Your task to perform on an android device: Open calendar and show me the second week of next month Image 0: 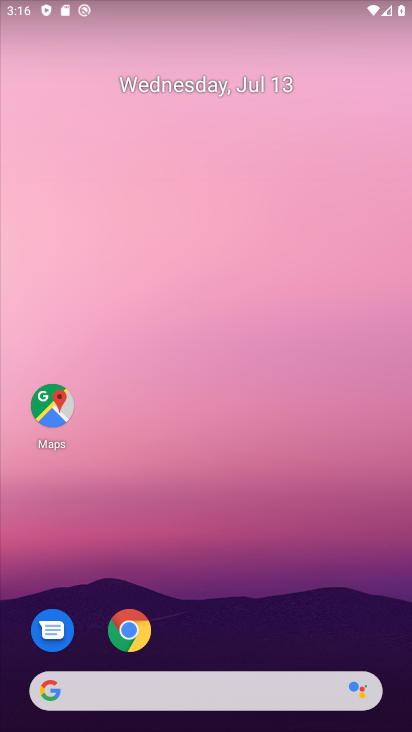
Step 0: press home button
Your task to perform on an android device: Open calendar and show me the second week of next month Image 1: 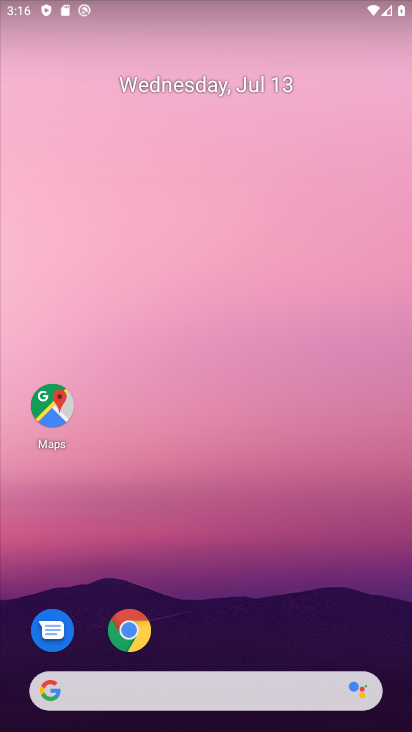
Step 1: drag from (260, 532) to (256, 93)
Your task to perform on an android device: Open calendar and show me the second week of next month Image 2: 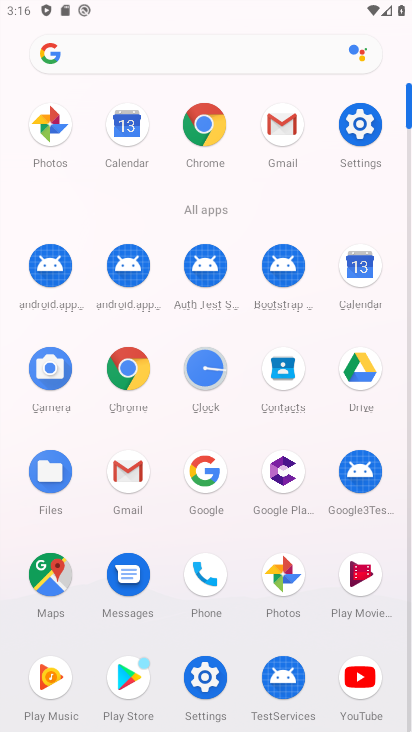
Step 2: click (357, 266)
Your task to perform on an android device: Open calendar and show me the second week of next month Image 3: 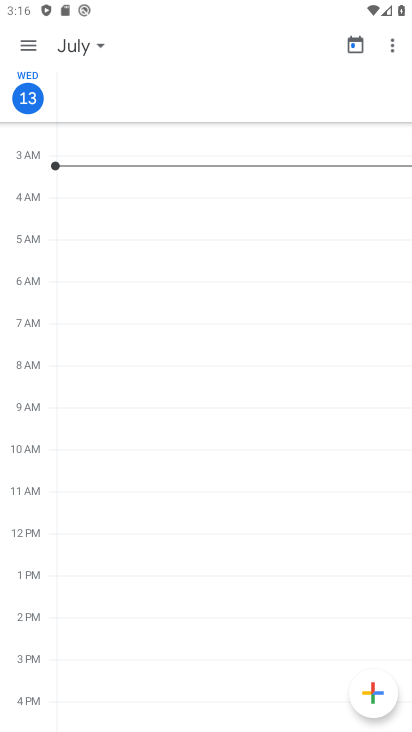
Step 3: click (24, 36)
Your task to perform on an android device: Open calendar and show me the second week of next month Image 4: 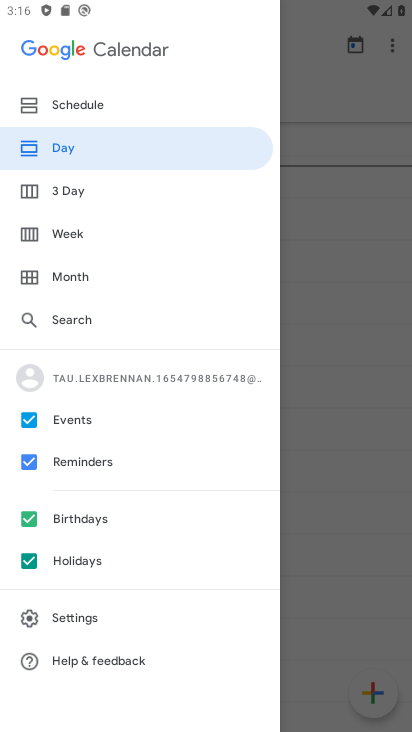
Step 4: click (68, 234)
Your task to perform on an android device: Open calendar and show me the second week of next month Image 5: 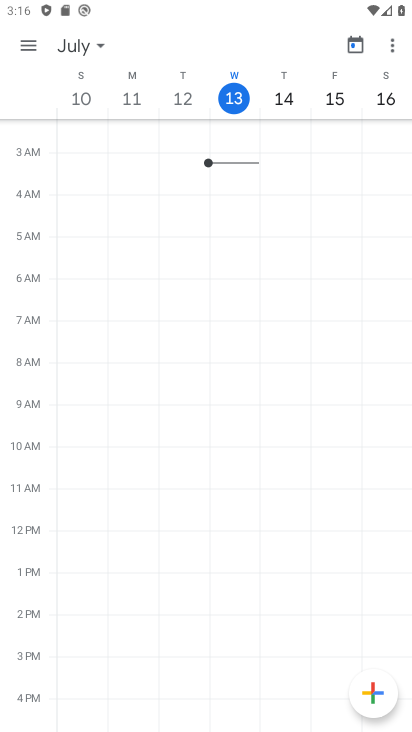
Step 5: click (103, 45)
Your task to perform on an android device: Open calendar and show me the second week of next month Image 6: 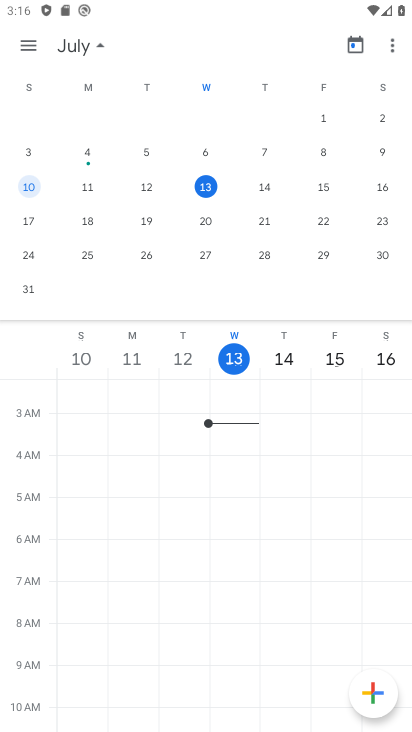
Step 6: click (379, 205)
Your task to perform on an android device: Open calendar and show me the second week of next month Image 7: 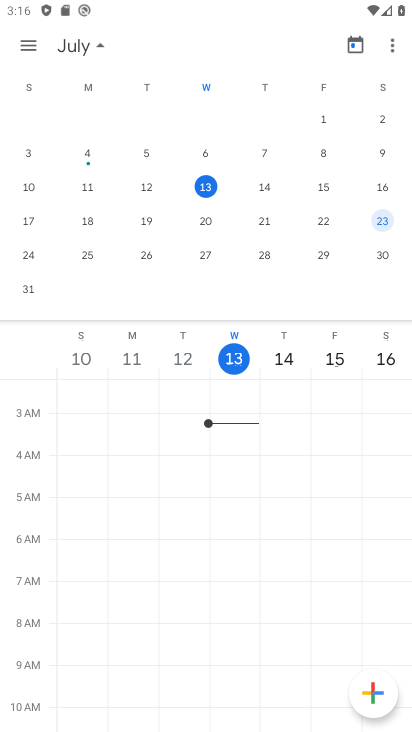
Step 7: click (379, 205)
Your task to perform on an android device: Open calendar and show me the second week of next month Image 8: 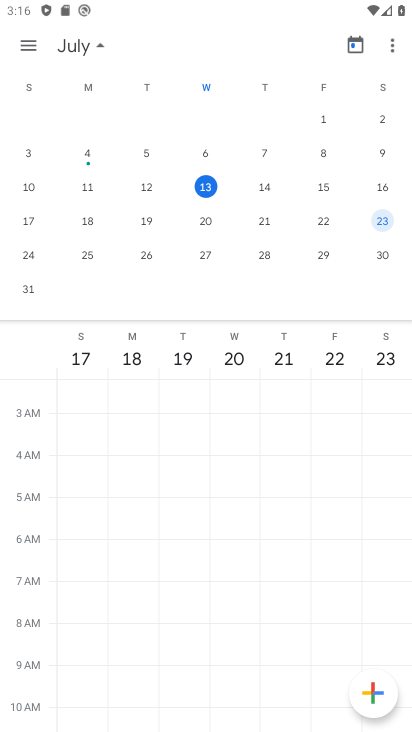
Step 8: drag from (376, 201) to (58, 194)
Your task to perform on an android device: Open calendar and show me the second week of next month Image 9: 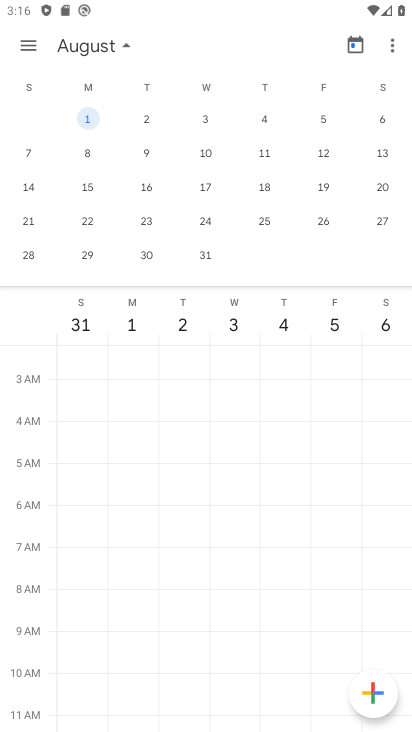
Step 9: click (145, 149)
Your task to perform on an android device: Open calendar and show me the second week of next month Image 10: 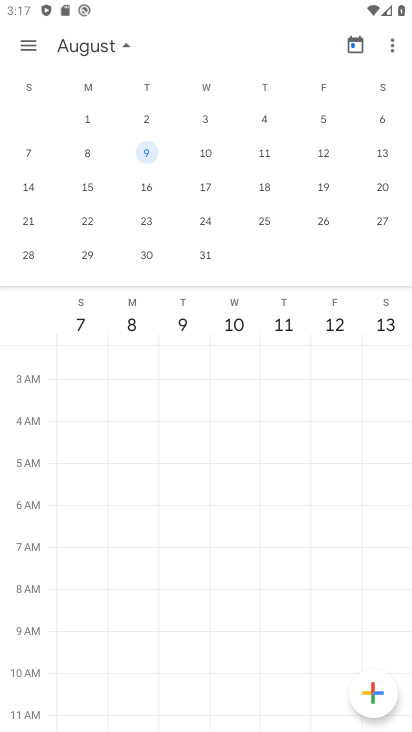
Step 10: task complete